Your task to perform on an android device: check battery use Image 0: 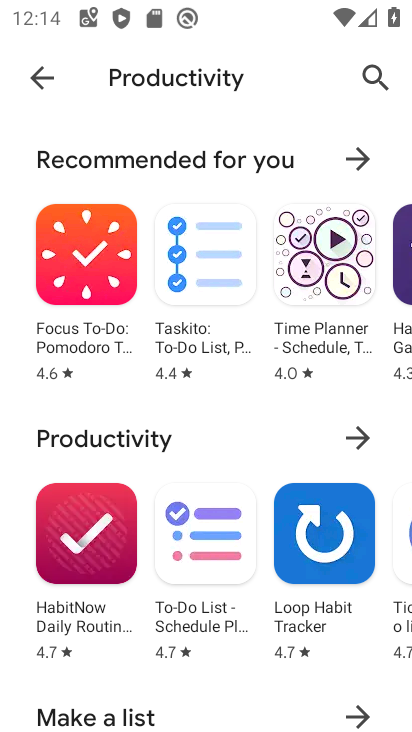
Step 0: press home button
Your task to perform on an android device: check battery use Image 1: 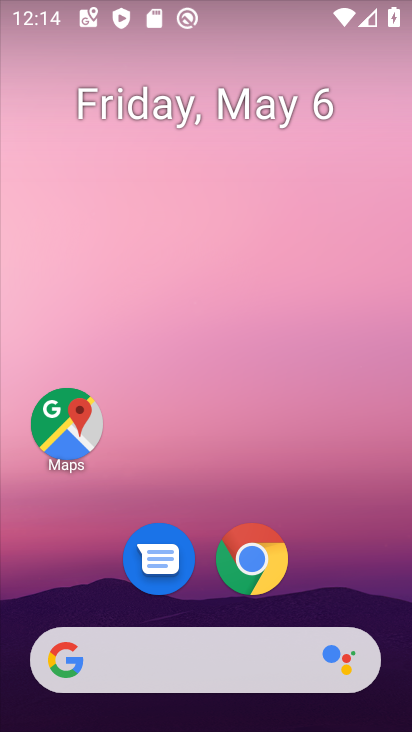
Step 1: drag from (343, 609) to (360, 45)
Your task to perform on an android device: check battery use Image 2: 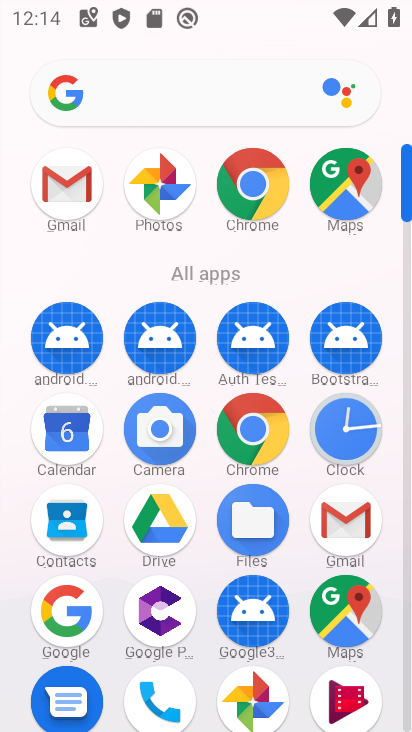
Step 2: drag from (206, 556) to (292, 258)
Your task to perform on an android device: check battery use Image 3: 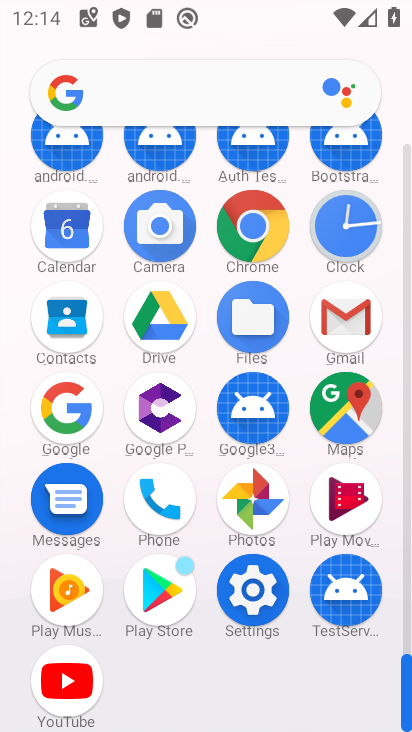
Step 3: click (246, 601)
Your task to perform on an android device: check battery use Image 4: 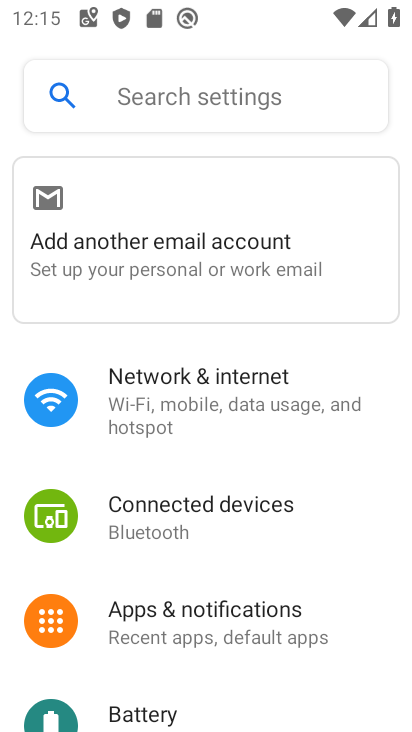
Step 4: drag from (199, 656) to (219, 529)
Your task to perform on an android device: check battery use Image 5: 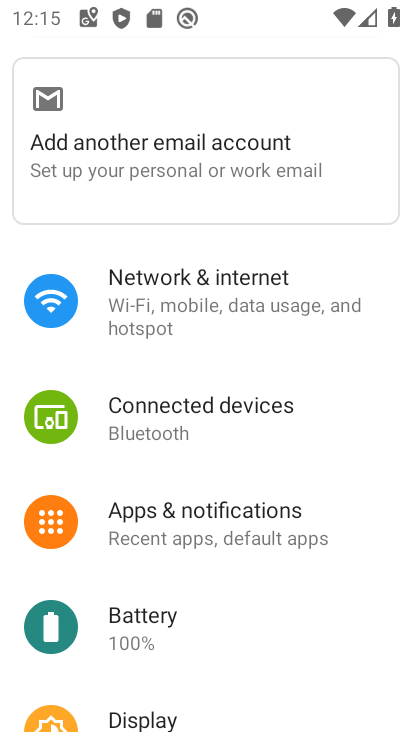
Step 5: click (149, 621)
Your task to perform on an android device: check battery use Image 6: 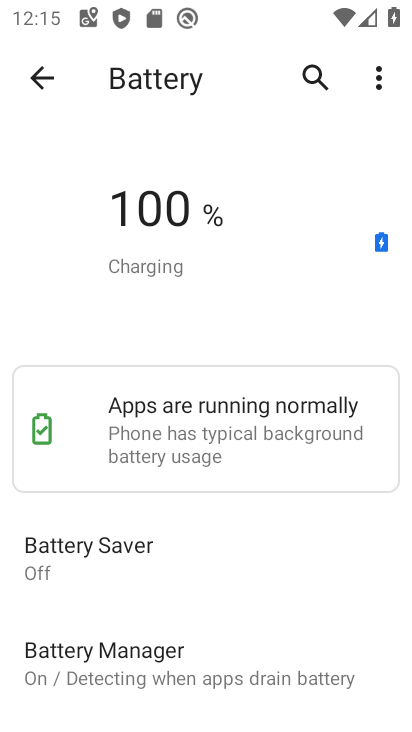
Step 6: click (383, 78)
Your task to perform on an android device: check battery use Image 7: 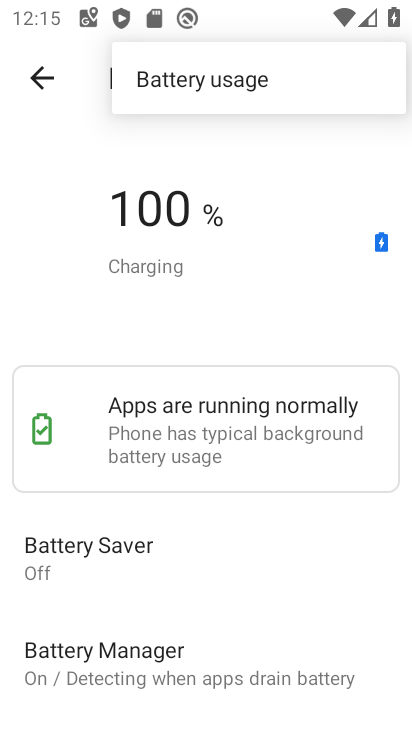
Step 7: click (305, 86)
Your task to perform on an android device: check battery use Image 8: 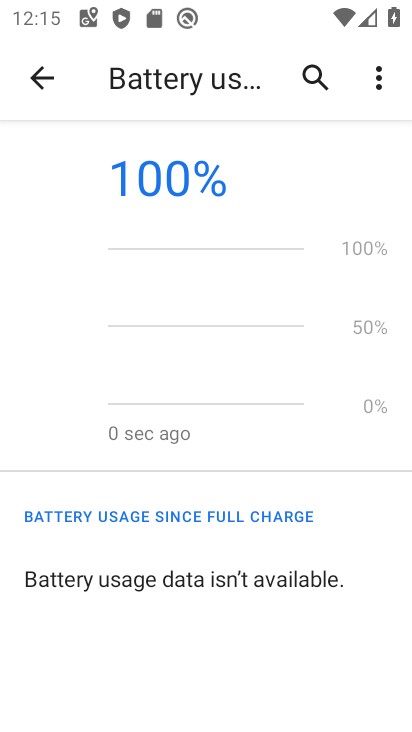
Step 8: task complete